Your task to perform on an android device: show emergency info Image 0: 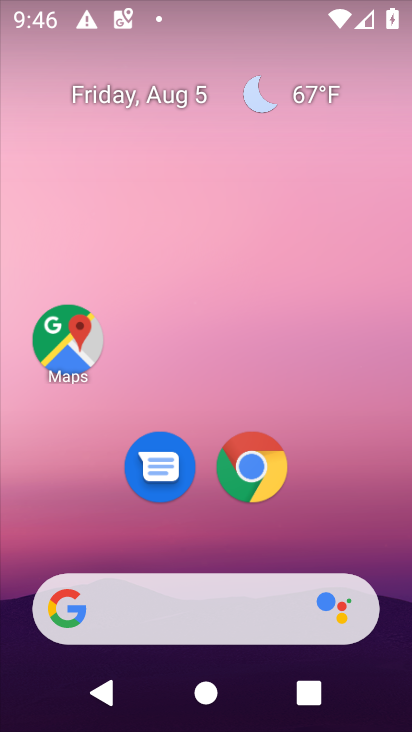
Step 0: drag from (223, 564) to (215, 162)
Your task to perform on an android device: show emergency info Image 1: 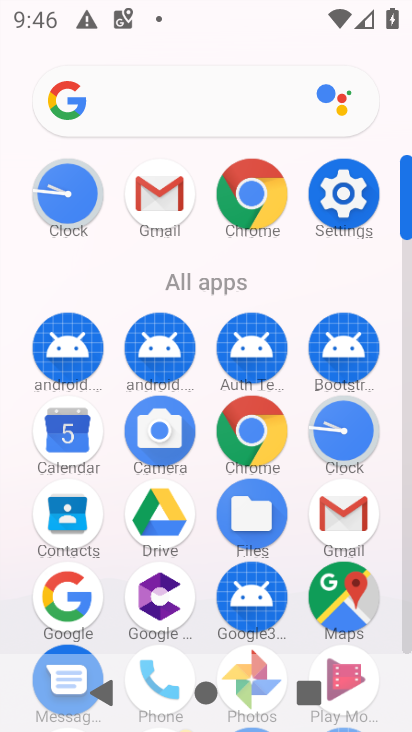
Step 1: click (349, 191)
Your task to perform on an android device: show emergency info Image 2: 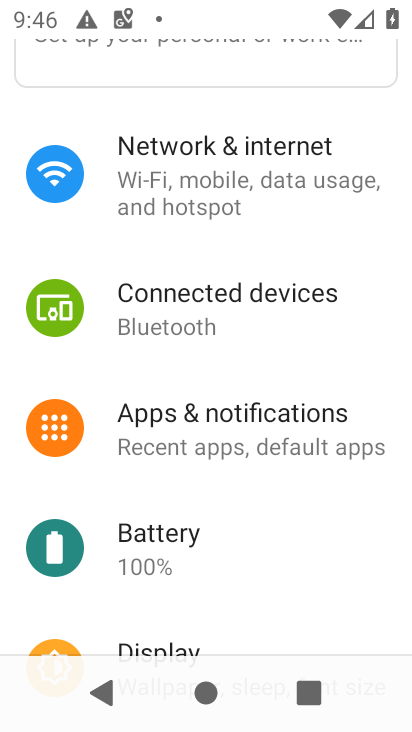
Step 2: drag from (273, 616) to (268, 138)
Your task to perform on an android device: show emergency info Image 3: 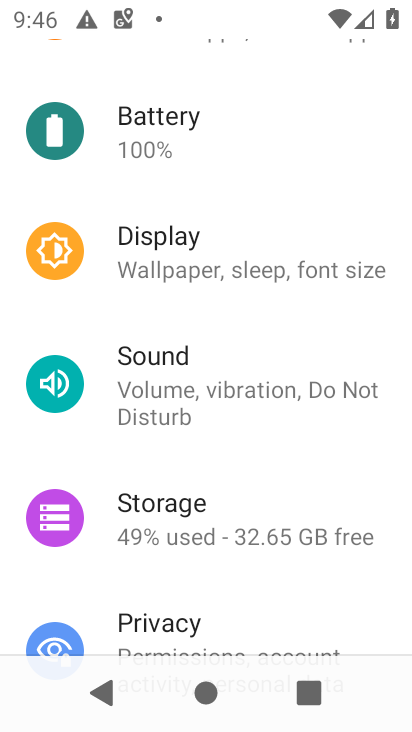
Step 3: drag from (295, 571) to (297, 210)
Your task to perform on an android device: show emergency info Image 4: 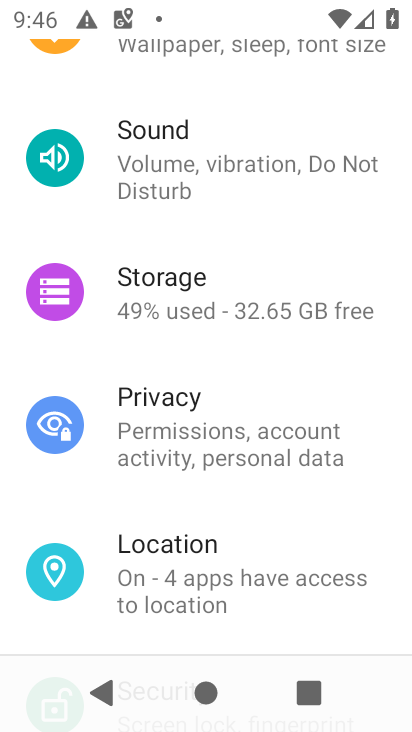
Step 4: drag from (272, 635) to (253, 251)
Your task to perform on an android device: show emergency info Image 5: 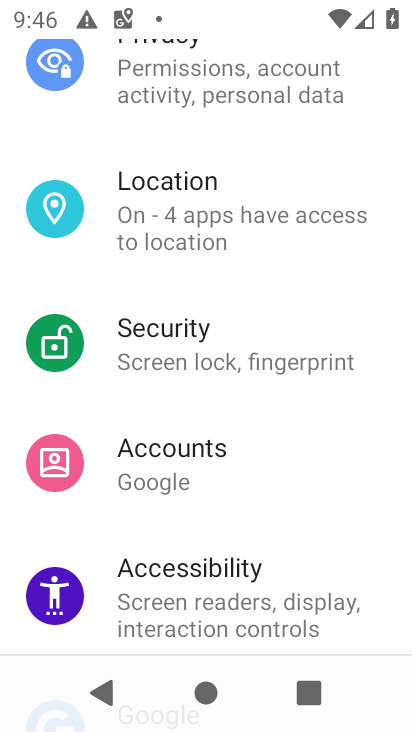
Step 5: drag from (206, 572) to (204, 262)
Your task to perform on an android device: show emergency info Image 6: 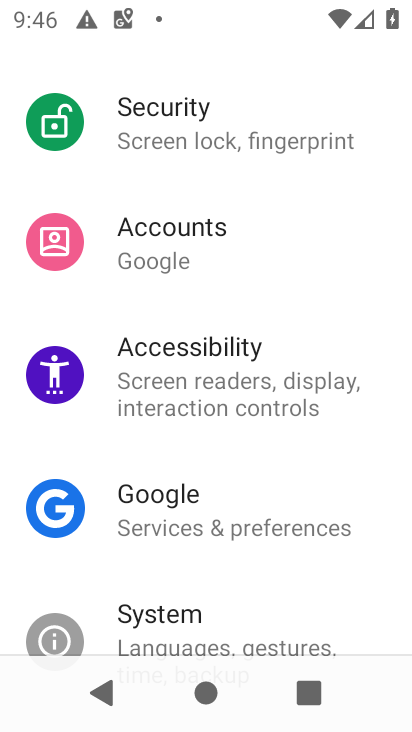
Step 6: drag from (222, 648) to (230, 242)
Your task to perform on an android device: show emergency info Image 7: 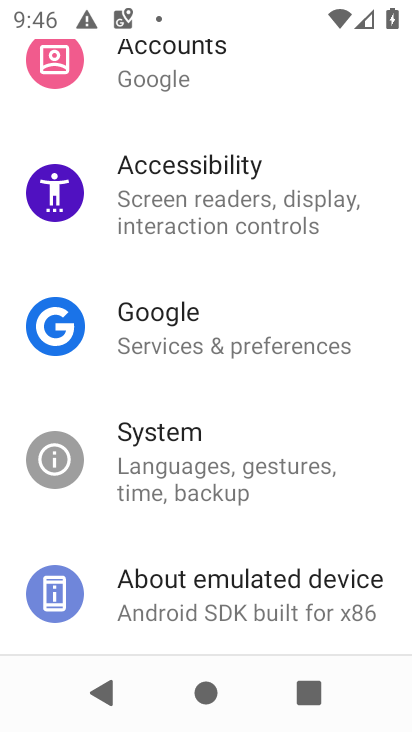
Step 7: click (189, 470)
Your task to perform on an android device: show emergency info Image 8: 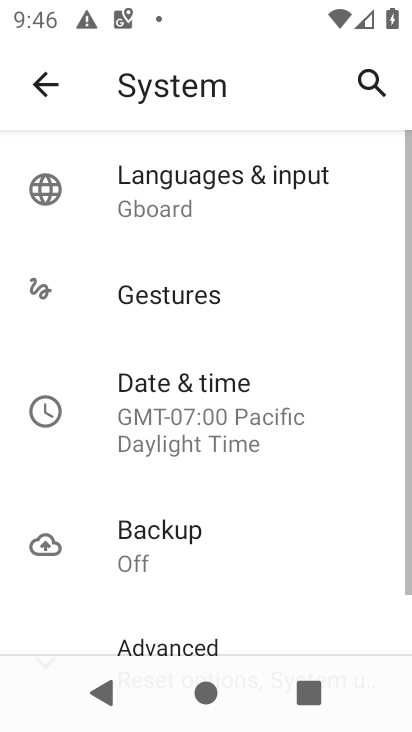
Step 8: click (47, 85)
Your task to perform on an android device: show emergency info Image 9: 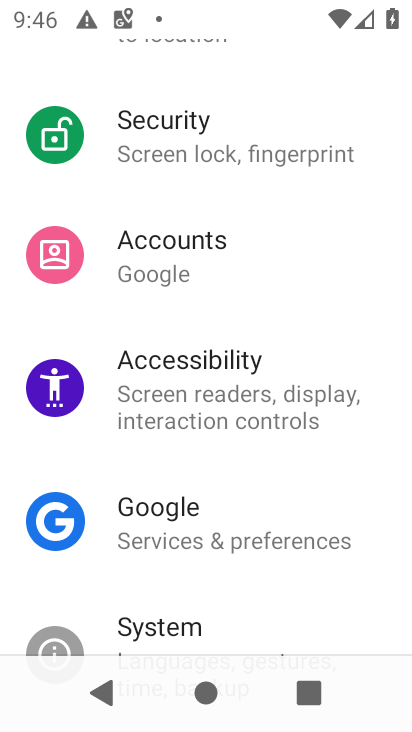
Step 9: drag from (234, 351) to (234, 276)
Your task to perform on an android device: show emergency info Image 10: 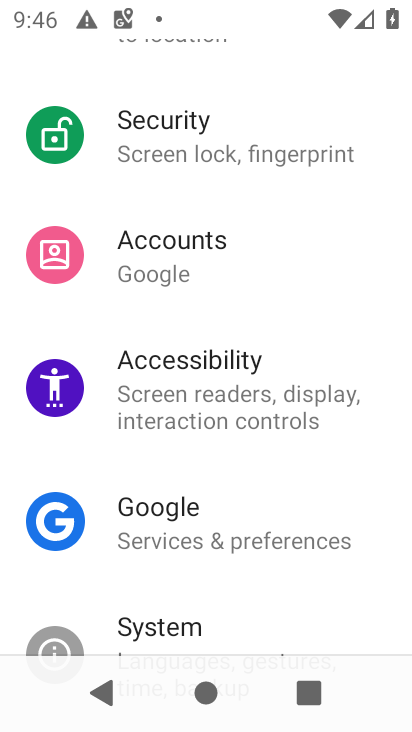
Step 10: drag from (229, 648) to (228, 310)
Your task to perform on an android device: show emergency info Image 11: 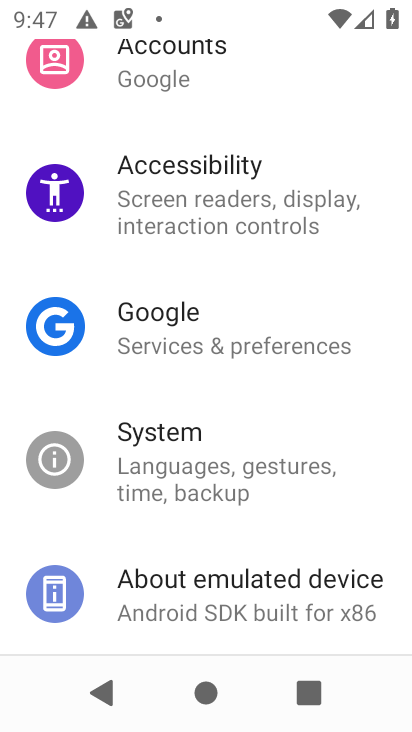
Step 11: click (230, 593)
Your task to perform on an android device: show emergency info Image 12: 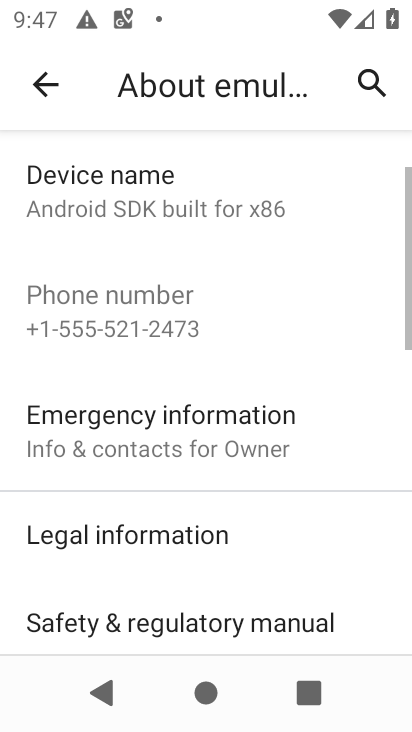
Step 12: click (159, 417)
Your task to perform on an android device: show emergency info Image 13: 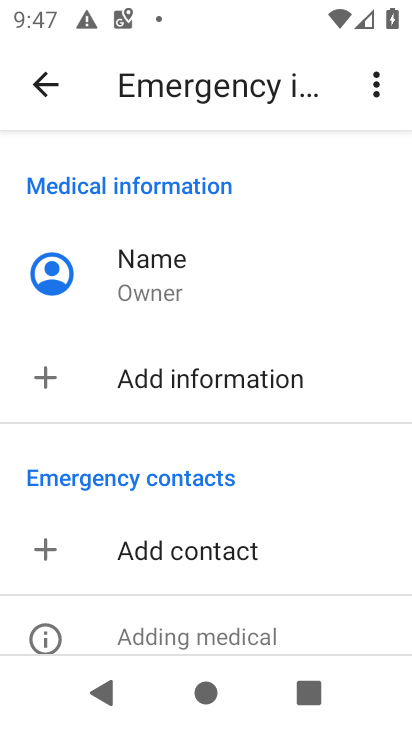
Step 13: task complete